Your task to perform on an android device: Open Yahoo.com Image 0: 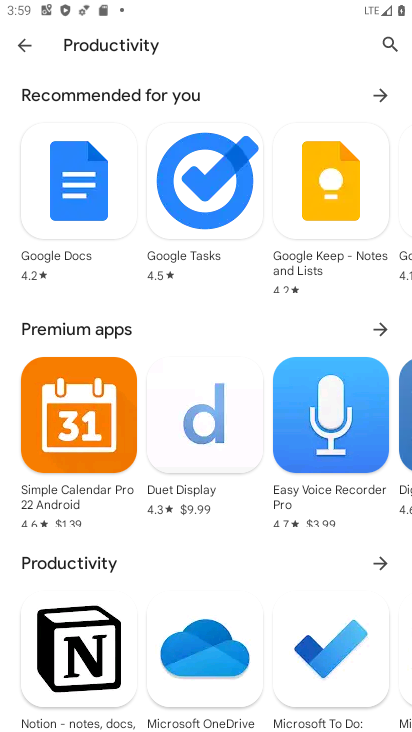
Step 0: press home button
Your task to perform on an android device: Open Yahoo.com Image 1: 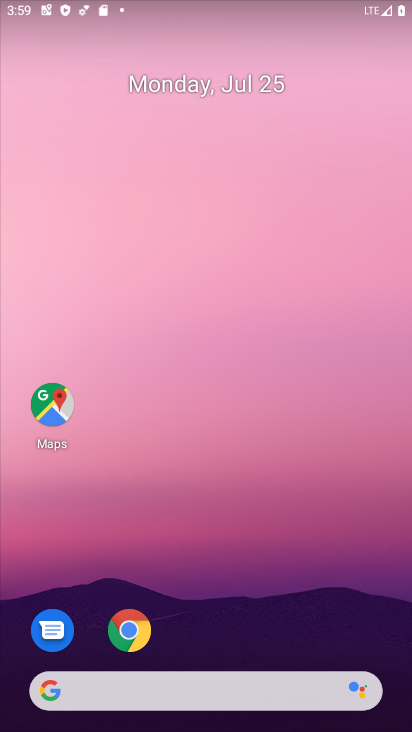
Step 1: click (123, 630)
Your task to perform on an android device: Open Yahoo.com Image 2: 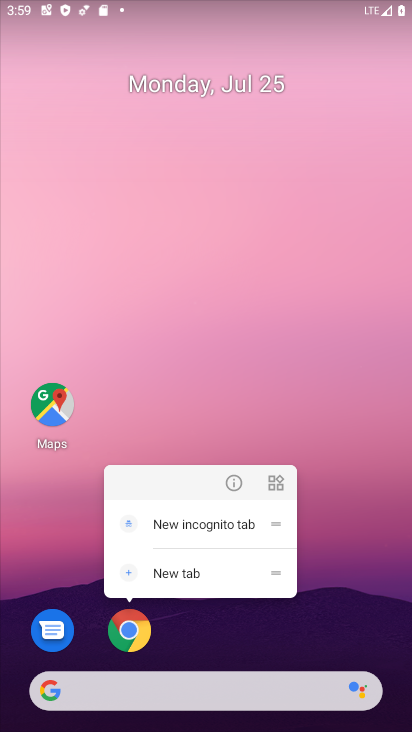
Step 2: click (130, 632)
Your task to perform on an android device: Open Yahoo.com Image 3: 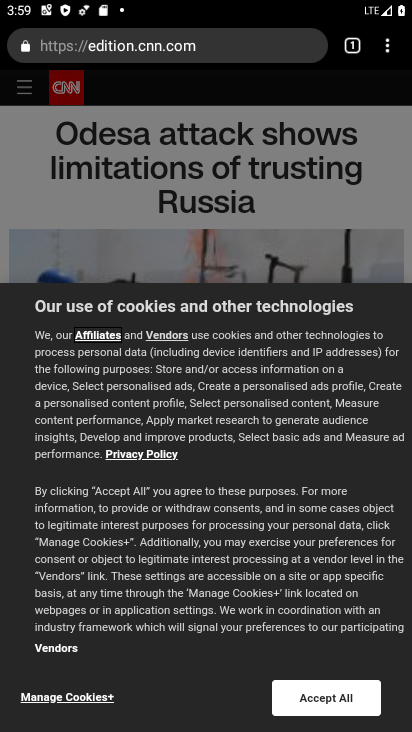
Step 3: click (243, 36)
Your task to perform on an android device: Open Yahoo.com Image 4: 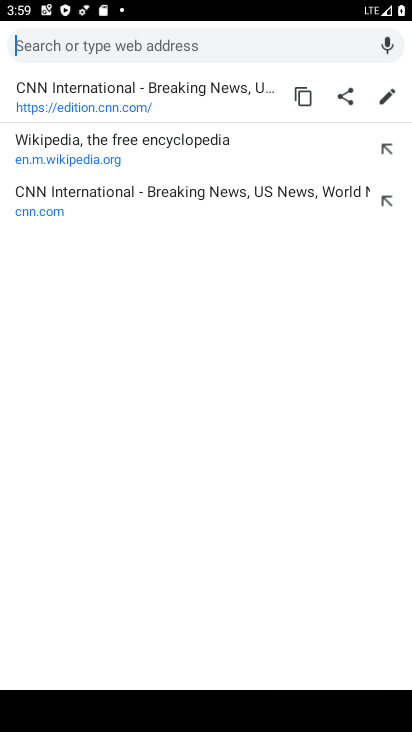
Step 4: type "yahoo.com"
Your task to perform on an android device: Open Yahoo.com Image 5: 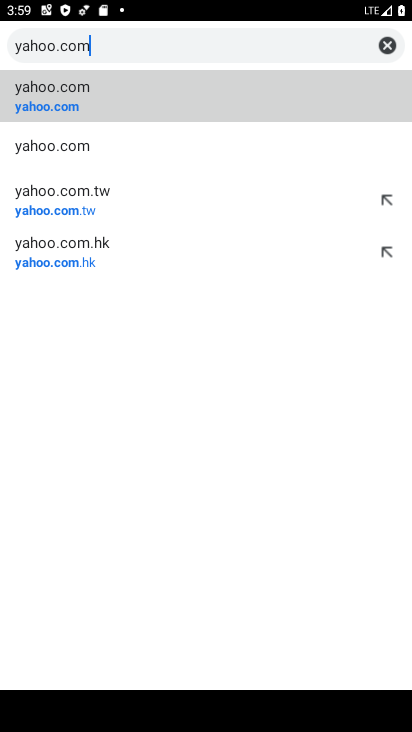
Step 5: click (83, 95)
Your task to perform on an android device: Open Yahoo.com Image 6: 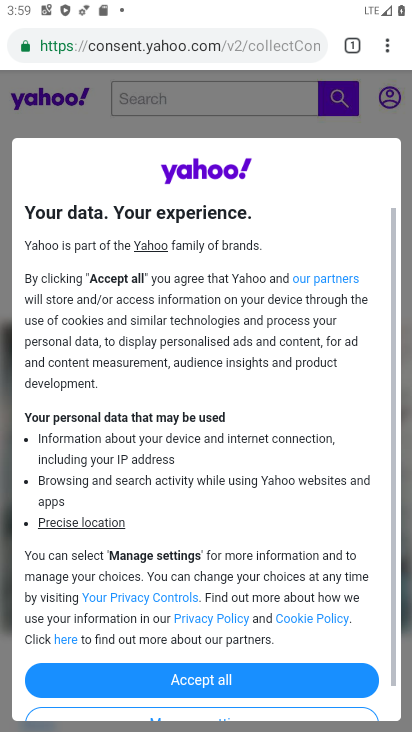
Step 6: task complete